Your task to perform on an android device: empty trash in google photos Image 0: 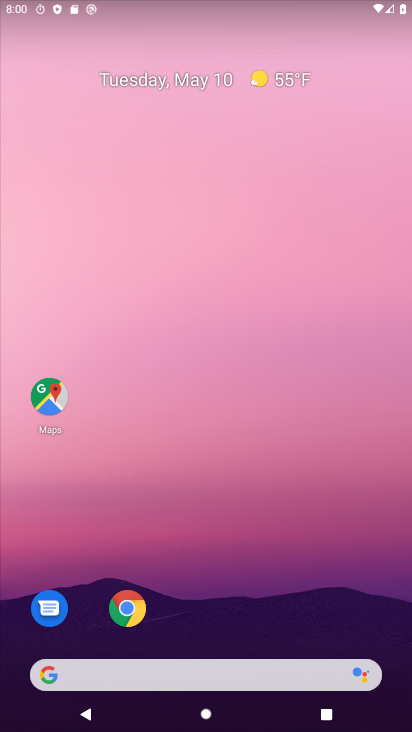
Step 0: drag from (235, 598) to (199, 122)
Your task to perform on an android device: empty trash in google photos Image 1: 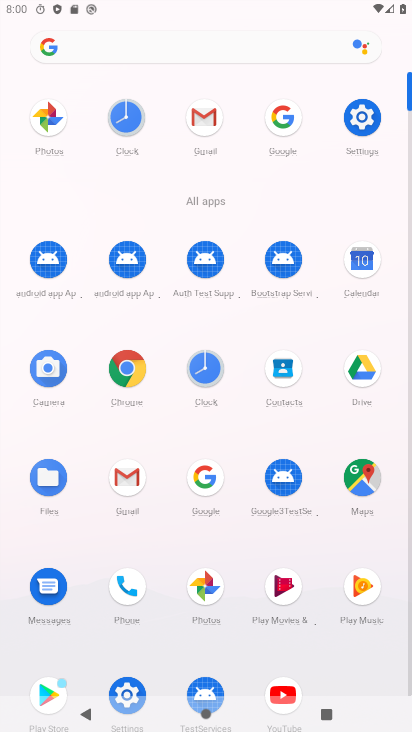
Step 1: click (49, 114)
Your task to perform on an android device: empty trash in google photos Image 2: 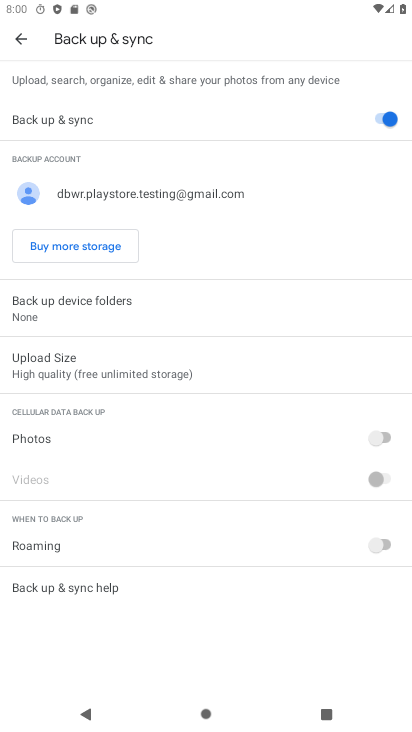
Step 2: press back button
Your task to perform on an android device: empty trash in google photos Image 3: 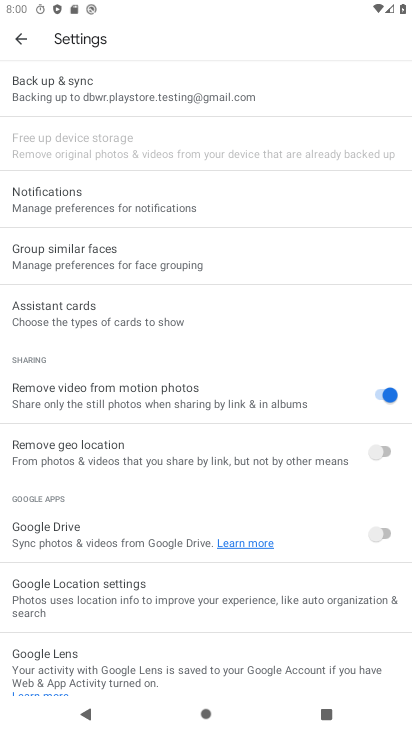
Step 3: press back button
Your task to perform on an android device: empty trash in google photos Image 4: 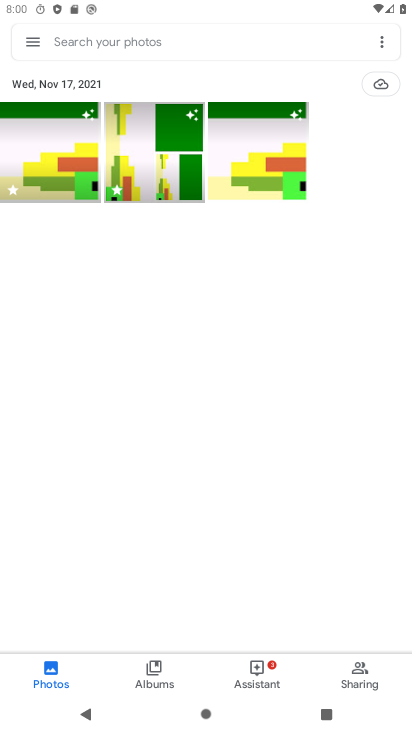
Step 4: click (34, 41)
Your task to perform on an android device: empty trash in google photos Image 5: 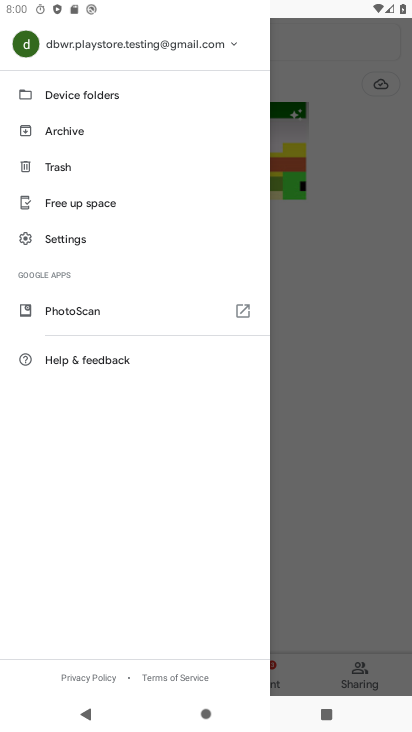
Step 5: click (62, 164)
Your task to perform on an android device: empty trash in google photos Image 6: 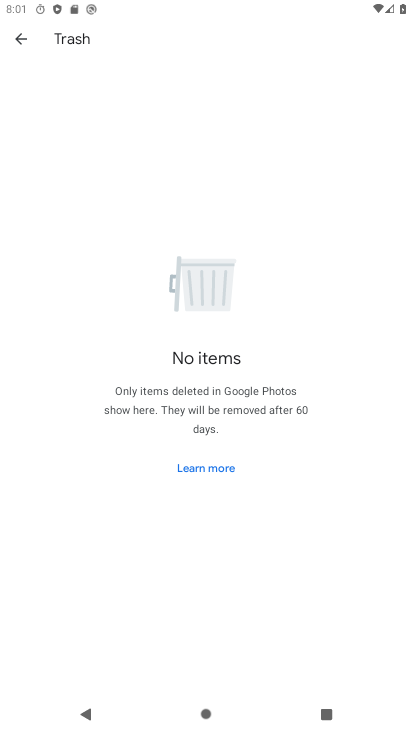
Step 6: task complete